Your task to perform on an android device: turn on priority inbox in the gmail app Image 0: 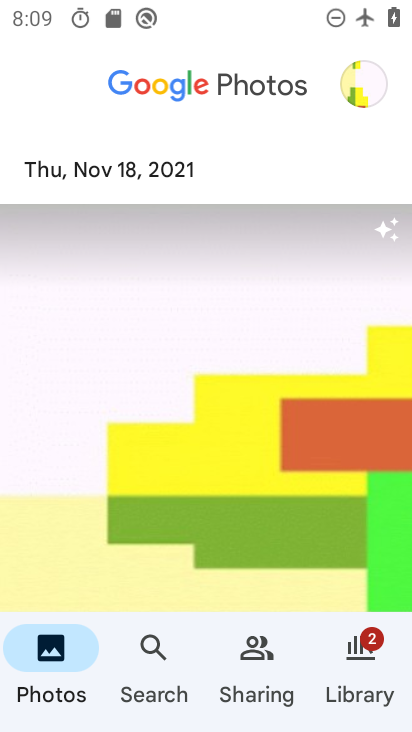
Step 0: press home button
Your task to perform on an android device: turn on priority inbox in the gmail app Image 1: 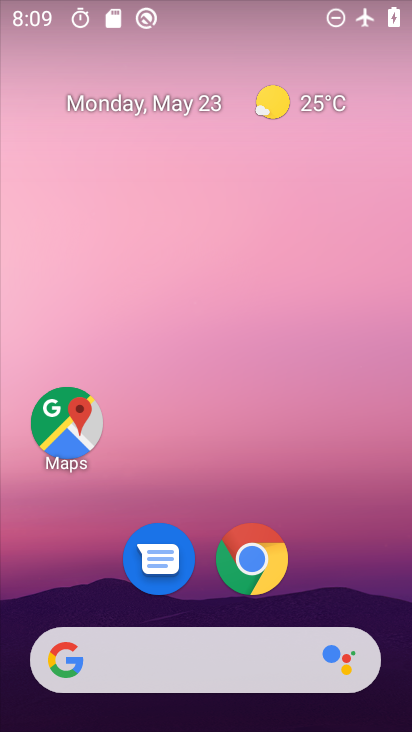
Step 1: drag from (382, 636) to (229, 34)
Your task to perform on an android device: turn on priority inbox in the gmail app Image 2: 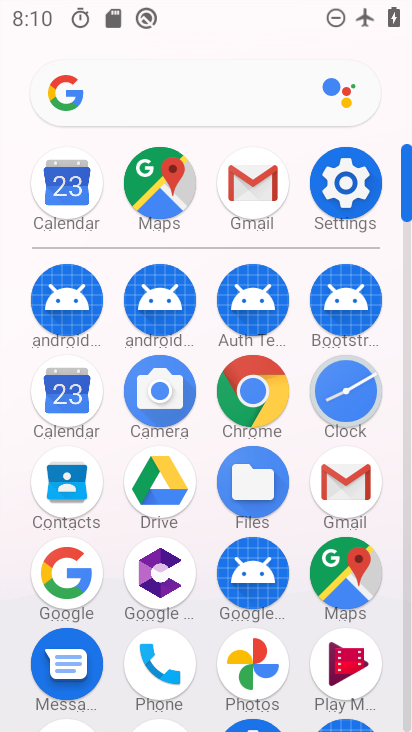
Step 2: click (364, 507)
Your task to perform on an android device: turn on priority inbox in the gmail app Image 3: 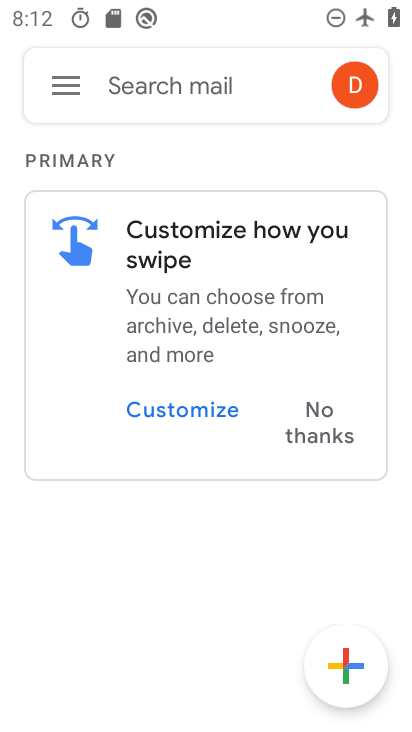
Step 3: click (64, 77)
Your task to perform on an android device: turn on priority inbox in the gmail app Image 4: 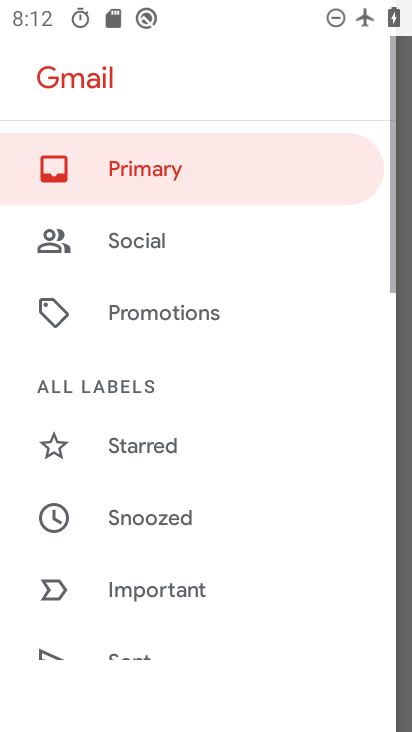
Step 4: drag from (188, 625) to (223, 3)
Your task to perform on an android device: turn on priority inbox in the gmail app Image 5: 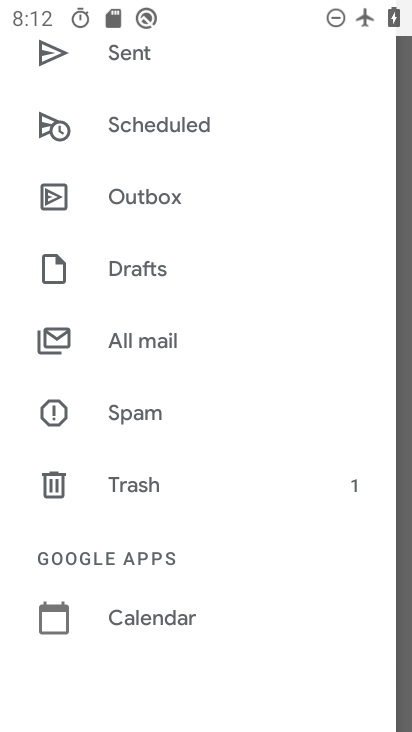
Step 5: drag from (203, 597) to (220, 38)
Your task to perform on an android device: turn on priority inbox in the gmail app Image 6: 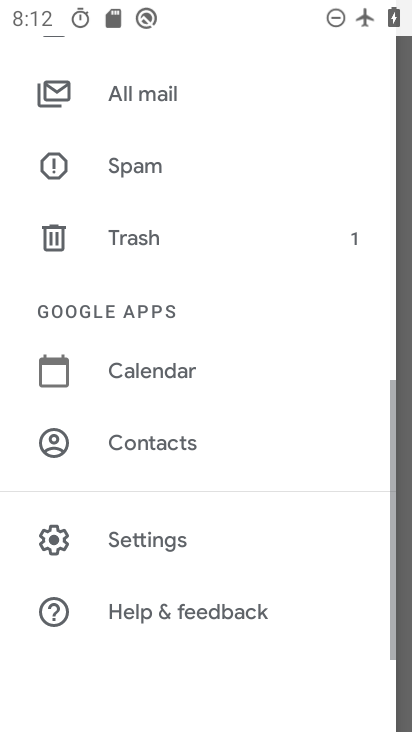
Step 6: click (179, 533)
Your task to perform on an android device: turn on priority inbox in the gmail app Image 7: 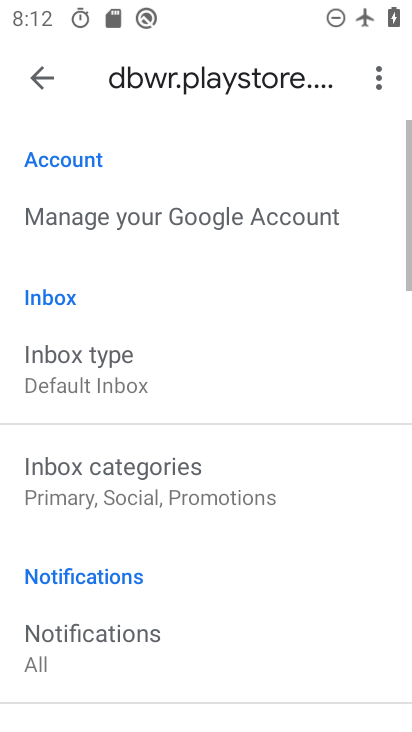
Step 7: click (127, 362)
Your task to perform on an android device: turn on priority inbox in the gmail app Image 8: 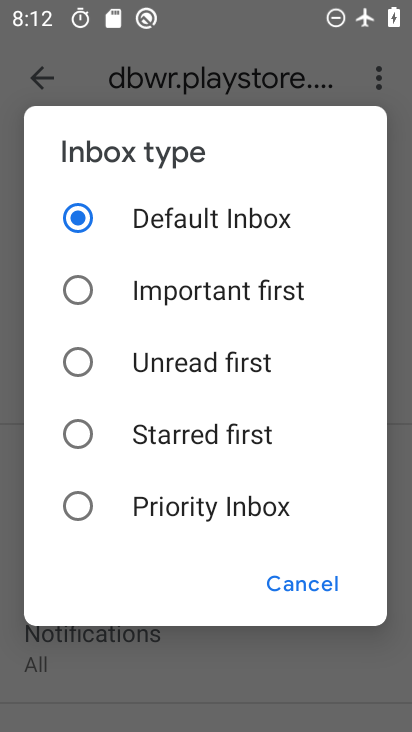
Step 8: click (74, 508)
Your task to perform on an android device: turn on priority inbox in the gmail app Image 9: 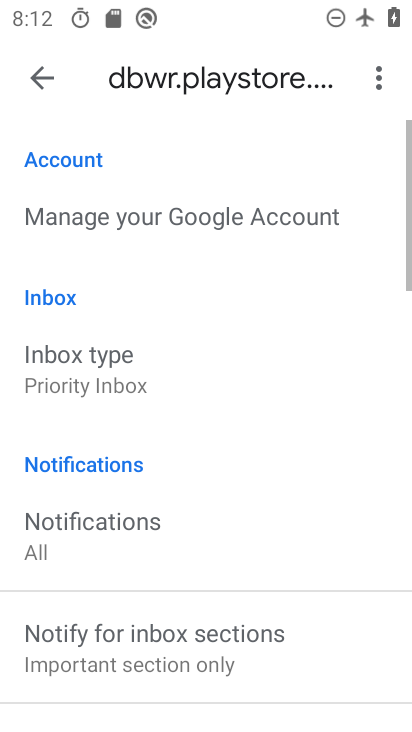
Step 9: task complete